Your task to perform on an android device: toggle priority inbox in the gmail app Image 0: 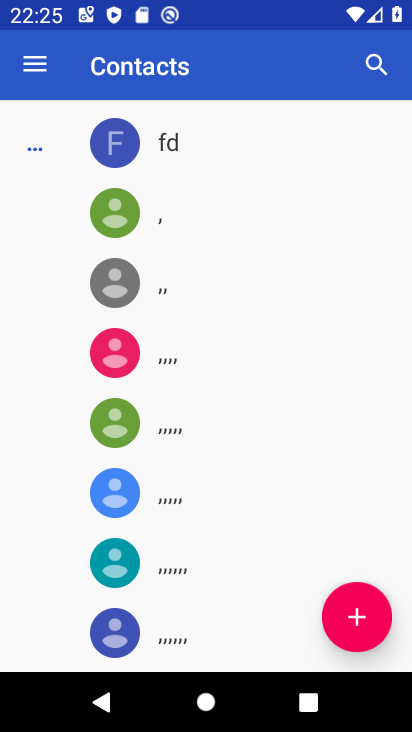
Step 0: press home button
Your task to perform on an android device: toggle priority inbox in the gmail app Image 1: 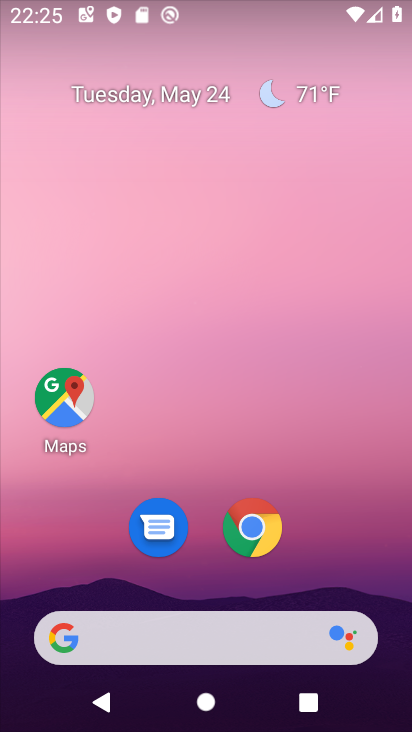
Step 1: drag from (205, 574) to (191, 0)
Your task to perform on an android device: toggle priority inbox in the gmail app Image 2: 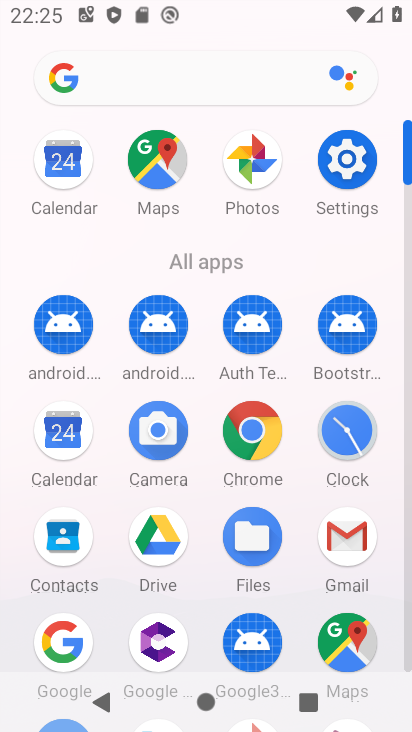
Step 2: click (334, 548)
Your task to perform on an android device: toggle priority inbox in the gmail app Image 3: 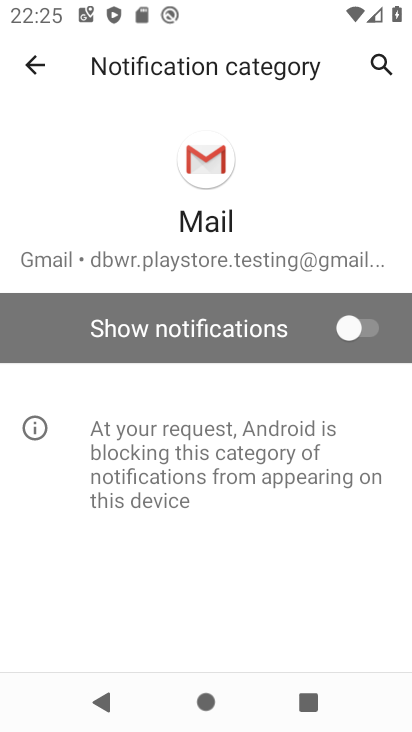
Step 3: click (32, 67)
Your task to perform on an android device: toggle priority inbox in the gmail app Image 4: 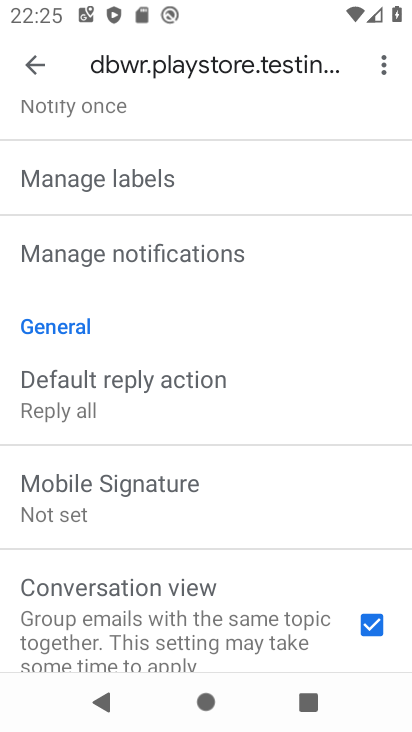
Step 4: drag from (165, 224) to (155, 503)
Your task to perform on an android device: toggle priority inbox in the gmail app Image 5: 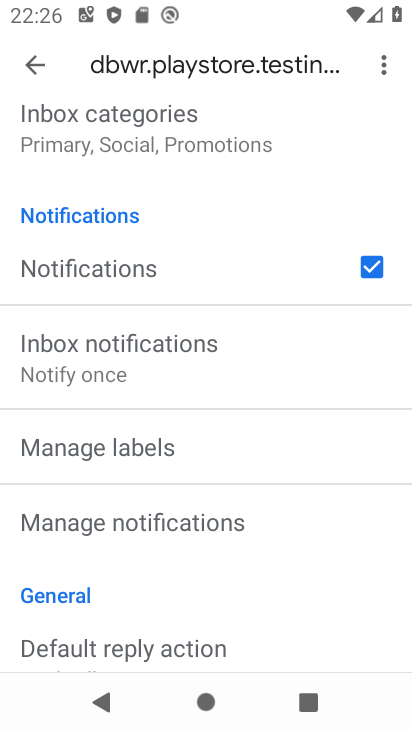
Step 5: drag from (142, 259) to (110, 469)
Your task to perform on an android device: toggle priority inbox in the gmail app Image 6: 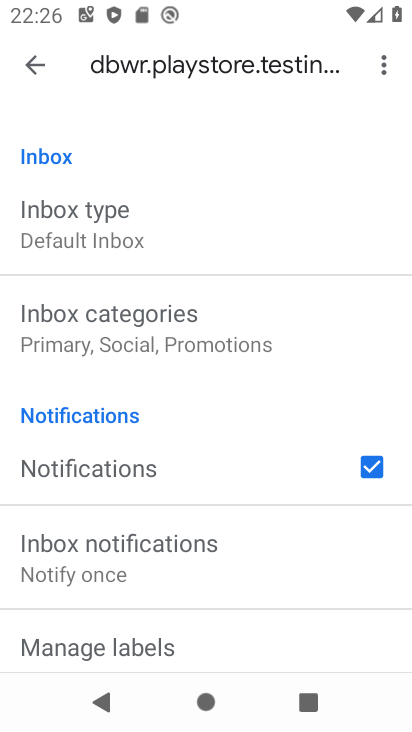
Step 6: click (104, 227)
Your task to perform on an android device: toggle priority inbox in the gmail app Image 7: 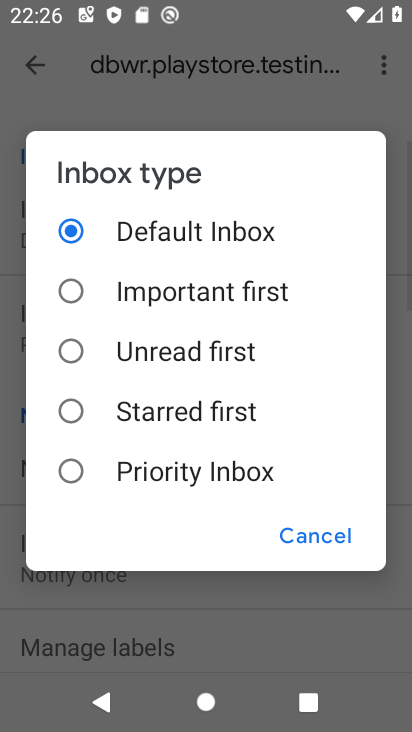
Step 7: click (103, 475)
Your task to perform on an android device: toggle priority inbox in the gmail app Image 8: 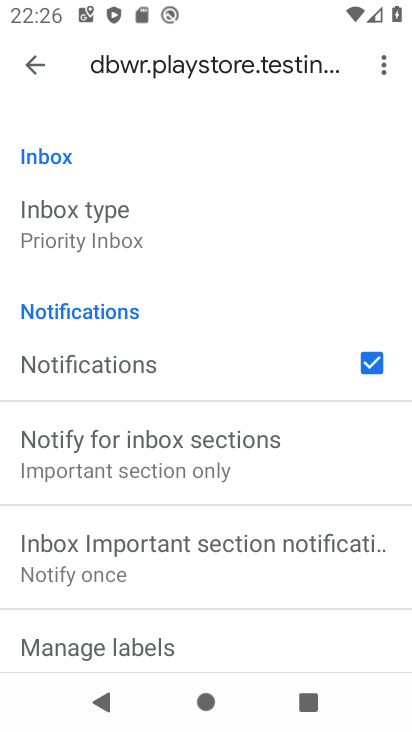
Step 8: task complete